Your task to perform on an android device: uninstall "Microsoft Outlook" Image 0: 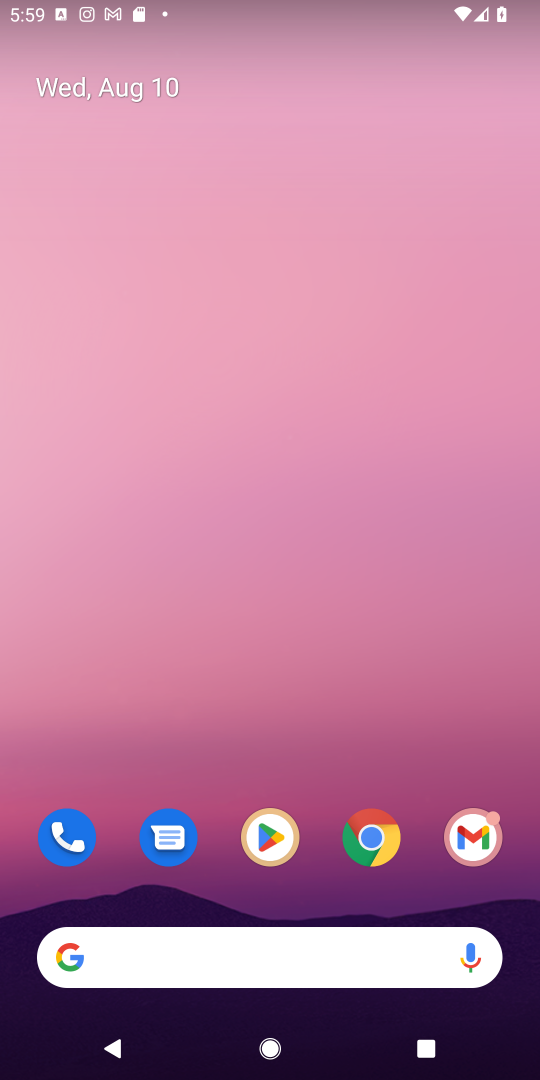
Step 0: click (266, 840)
Your task to perform on an android device: uninstall "Microsoft Outlook" Image 1: 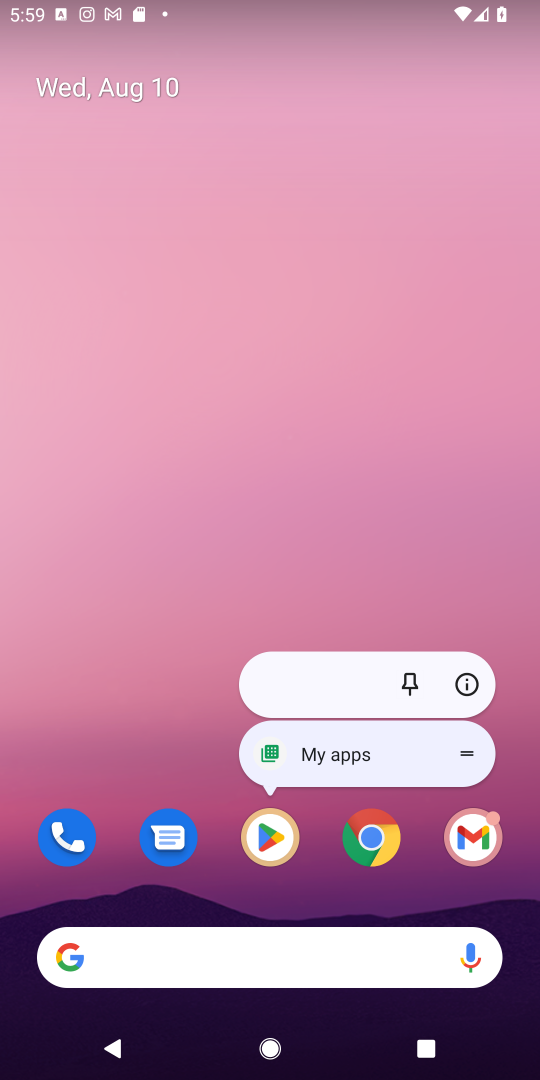
Step 1: click (266, 844)
Your task to perform on an android device: uninstall "Microsoft Outlook" Image 2: 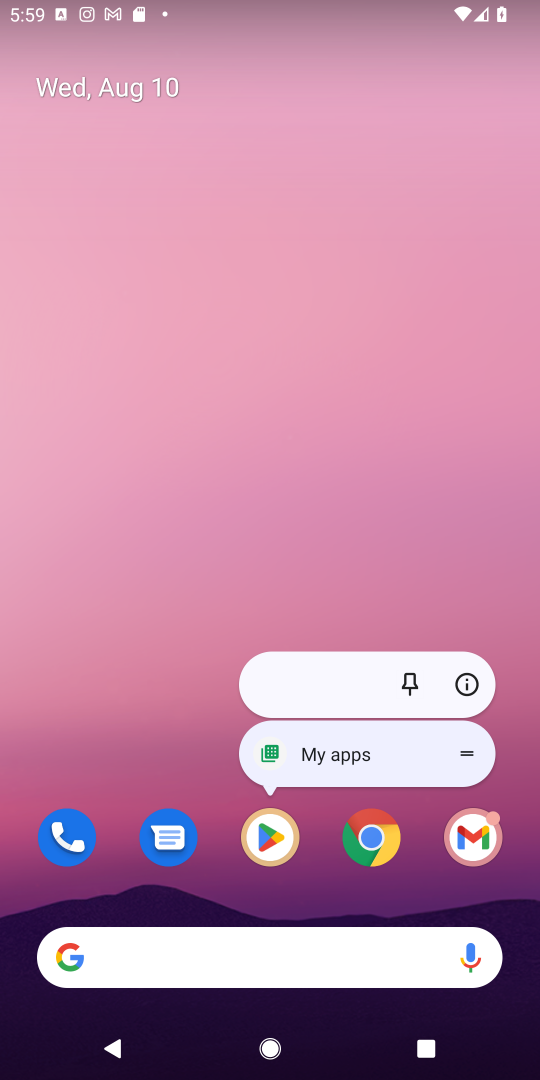
Step 2: click (266, 846)
Your task to perform on an android device: uninstall "Microsoft Outlook" Image 3: 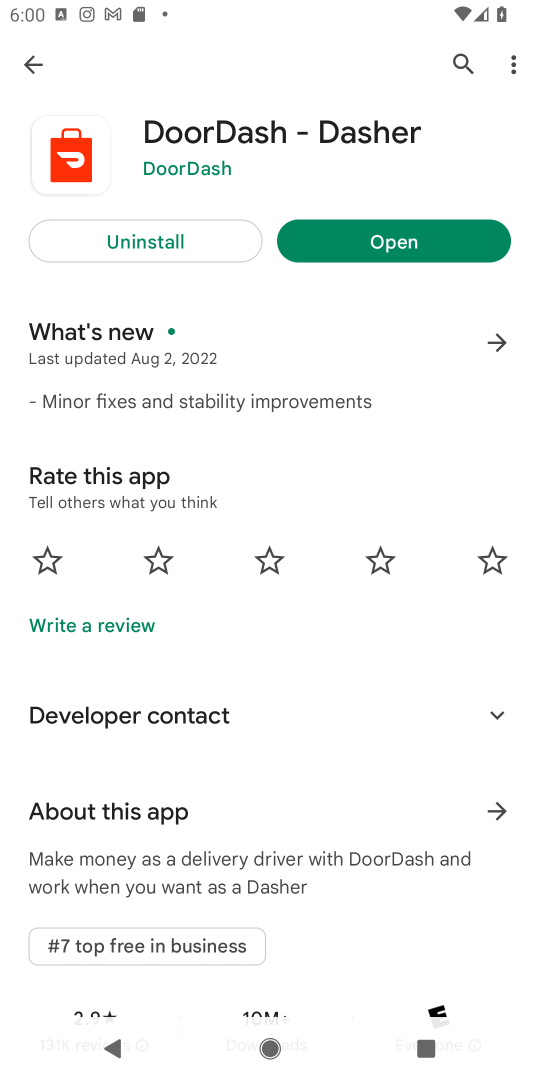
Step 3: click (454, 58)
Your task to perform on an android device: uninstall "Microsoft Outlook" Image 4: 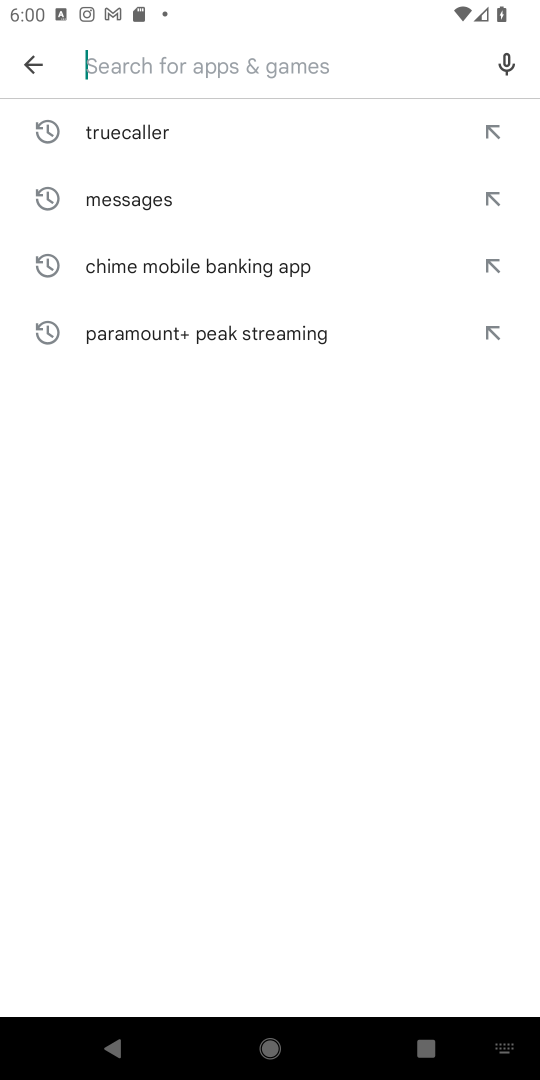
Step 4: type "Microsoft Outlook"
Your task to perform on an android device: uninstall "Microsoft Outlook" Image 5: 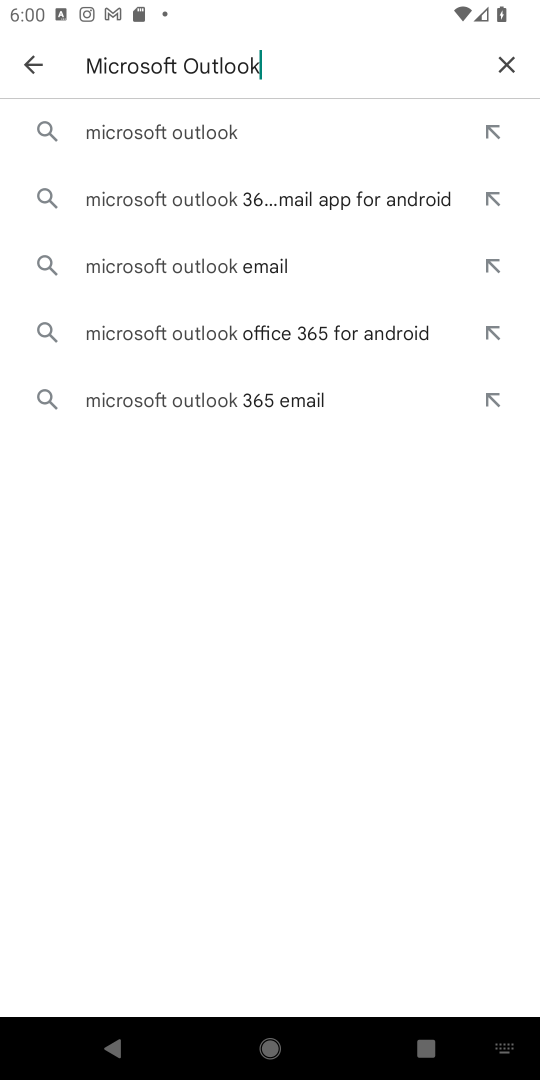
Step 5: click (199, 105)
Your task to perform on an android device: uninstall "Microsoft Outlook" Image 6: 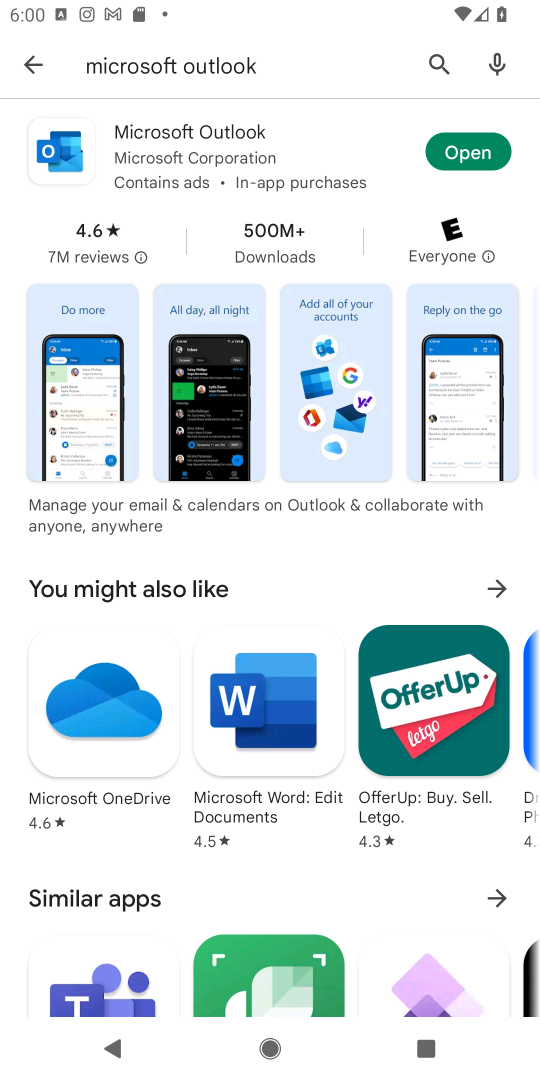
Step 6: click (197, 142)
Your task to perform on an android device: uninstall "Microsoft Outlook" Image 7: 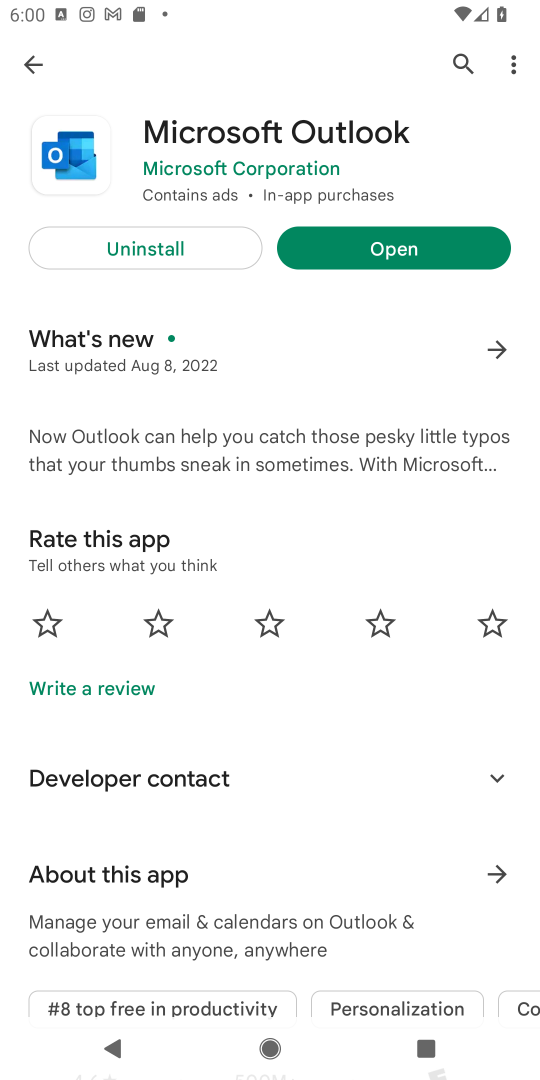
Step 7: click (159, 239)
Your task to perform on an android device: uninstall "Microsoft Outlook" Image 8: 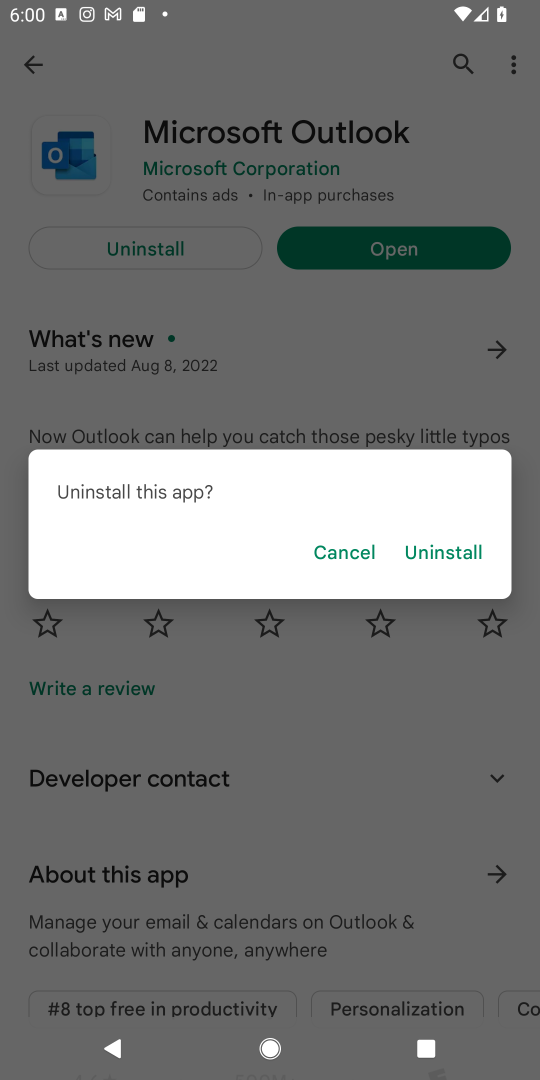
Step 8: click (449, 545)
Your task to perform on an android device: uninstall "Microsoft Outlook" Image 9: 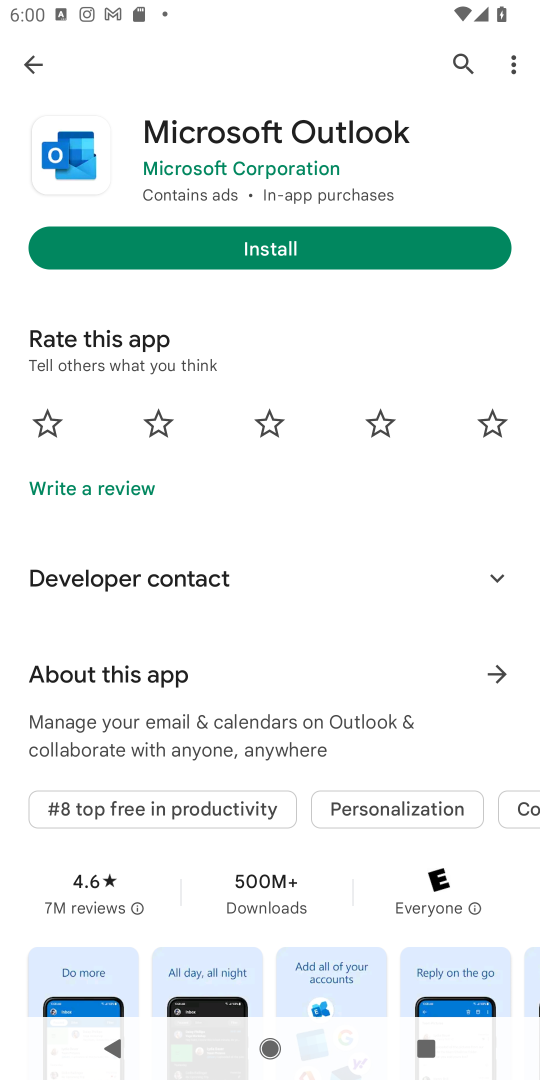
Step 9: task complete